Your task to perform on an android device: change text size in settings app Image 0: 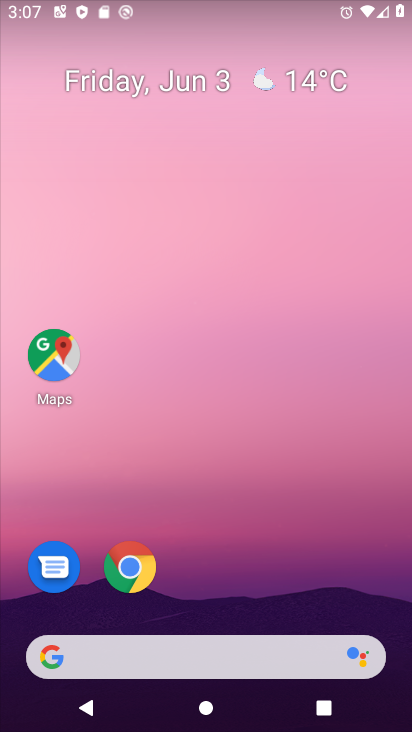
Step 0: drag from (249, 662) to (240, 172)
Your task to perform on an android device: change text size in settings app Image 1: 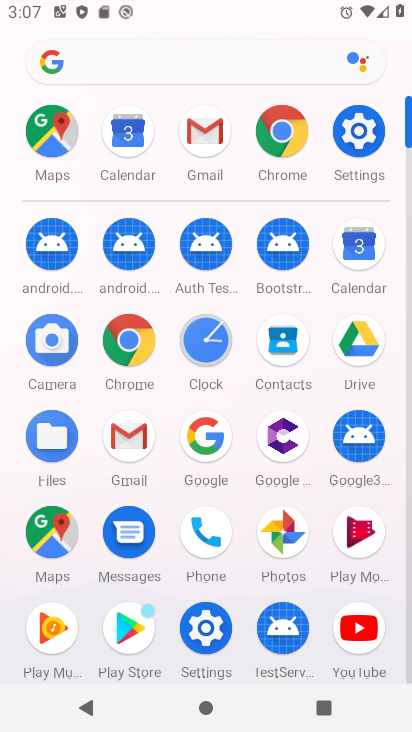
Step 1: click (192, 615)
Your task to perform on an android device: change text size in settings app Image 2: 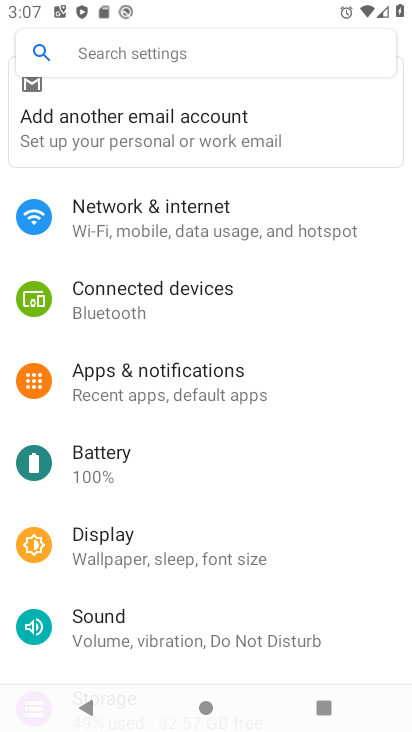
Step 2: click (150, 47)
Your task to perform on an android device: change text size in settings app Image 3: 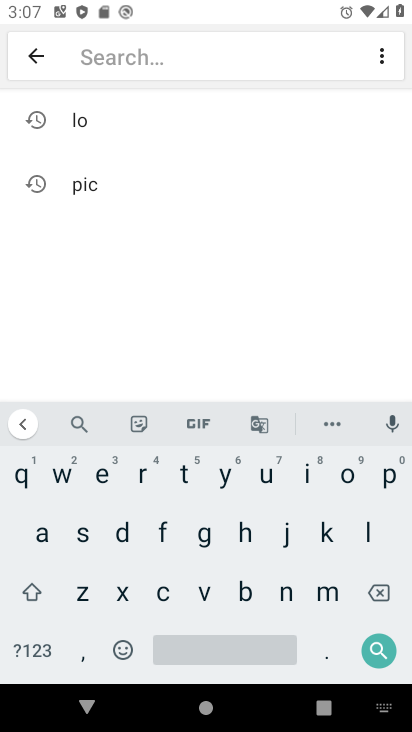
Step 3: click (76, 561)
Your task to perform on an android device: change text size in settings app Image 4: 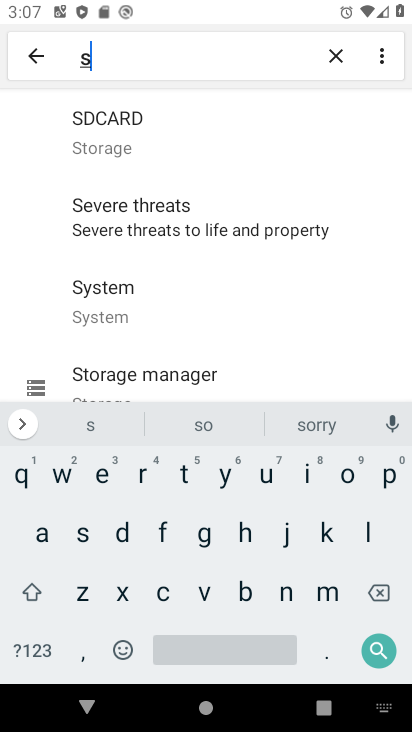
Step 4: click (301, 474)
Your task to perform on an android device: change text size in settings app Image 5: 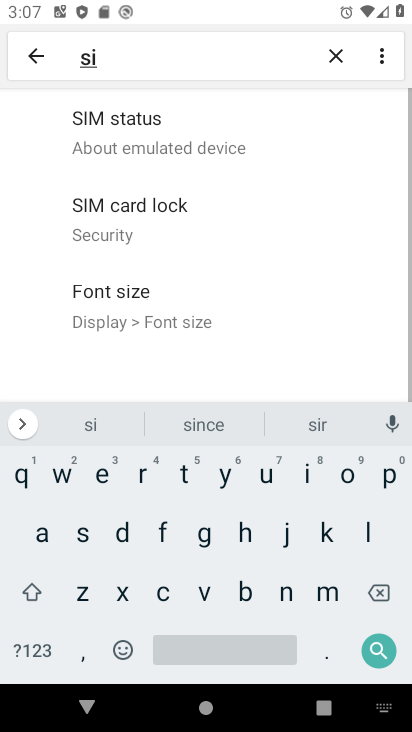
Step 5: click (77, 587)
Your task to perform on an android device: change text size in settings app Image 6: 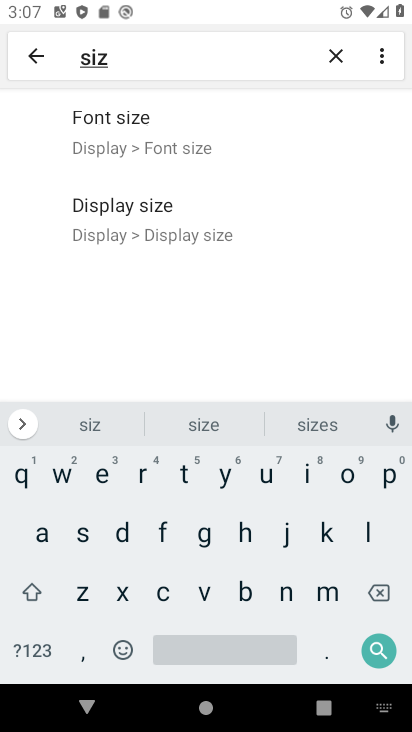
Step 6: click (144, 149)
Your task to perform on an android device: change text size in settings app Image 7: 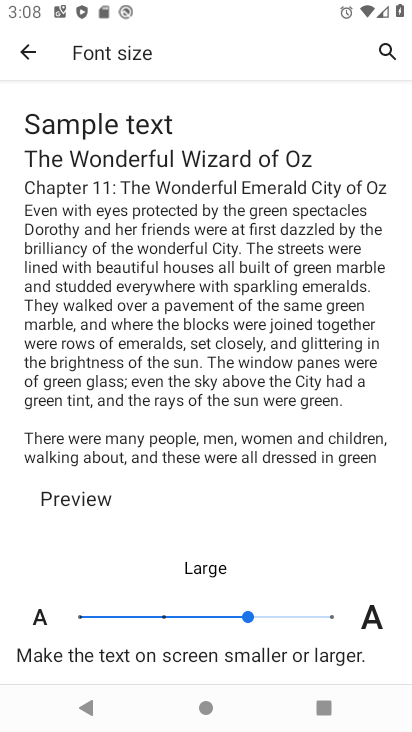
Step 7: click (166, 621)
Your task to perform on an android device: change text size in settings app Image 8: 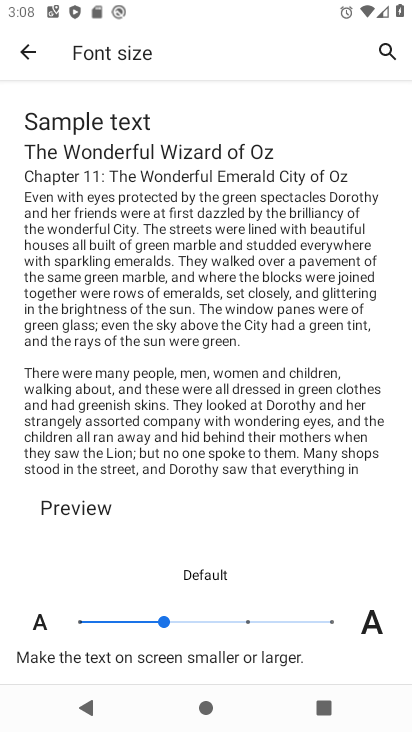
Step 8: task complete